Your task to perform on an android device: Check the settings for the Google Maps app Image 0: 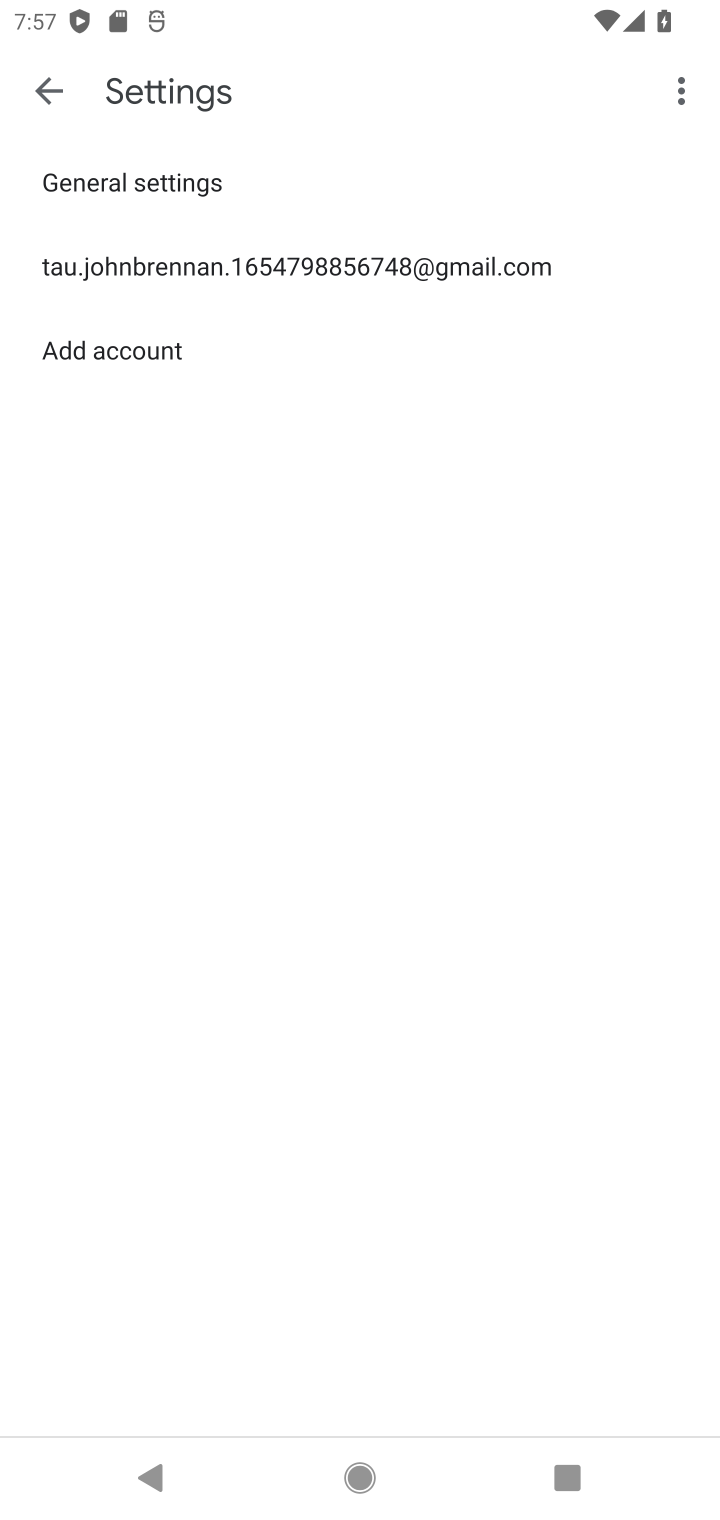
Step 0: press home button
Your task to perform on an android device: Check the settings for the Google Maps app Image 1: 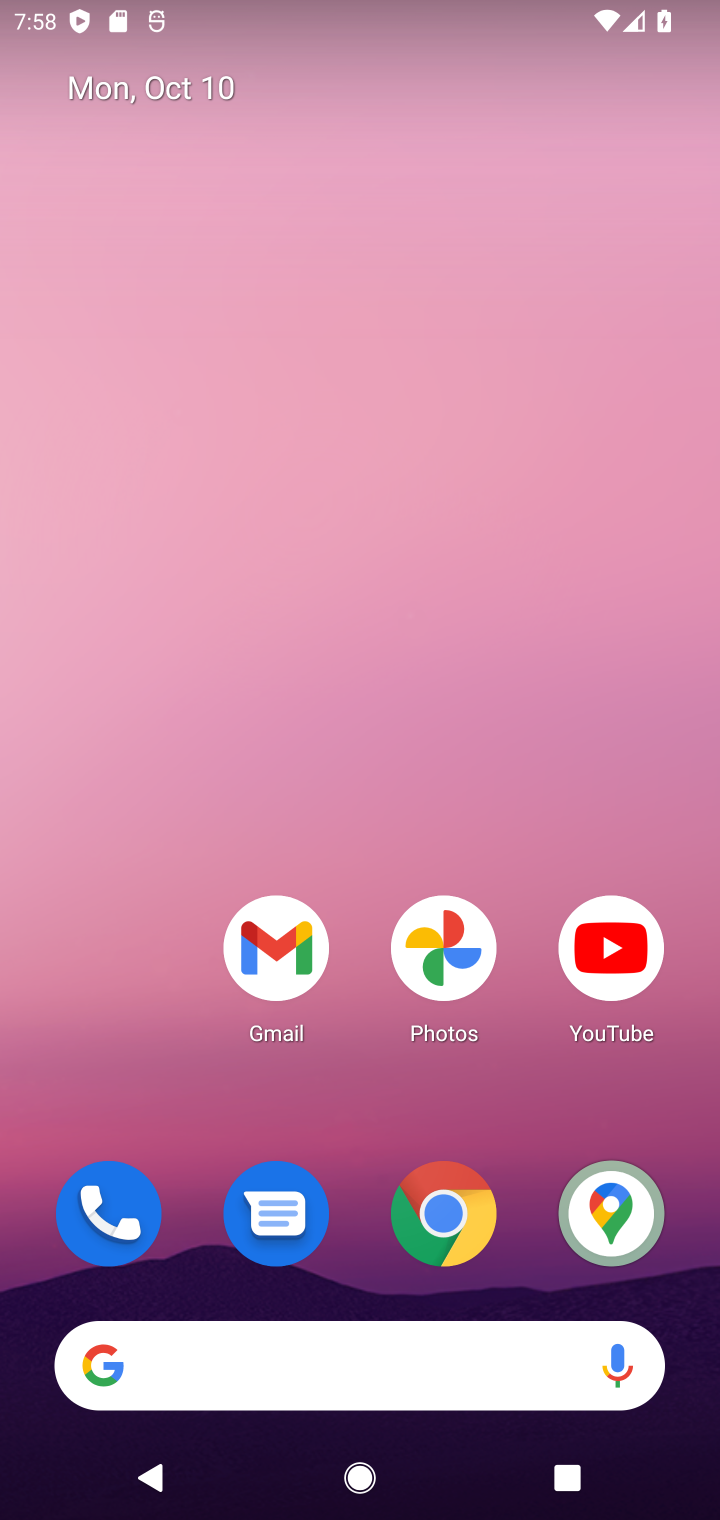
Step 1: click (605, 1219)
Your task to perform on an android device: Check the settings for the Google Maps app Image 2: 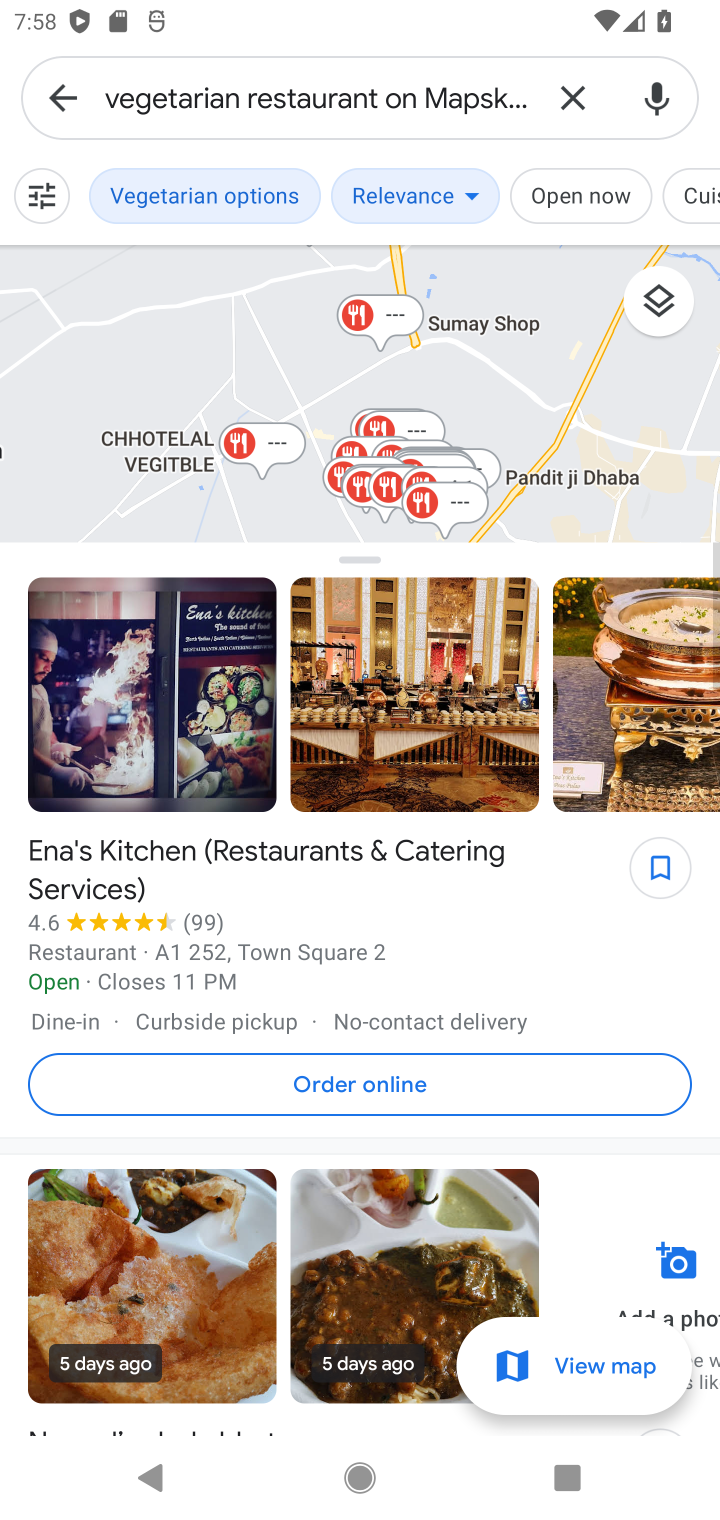
Step 2: click (66, 88)
Your task to perform on an android device: Check the settings for the Google Maps app Image 3: 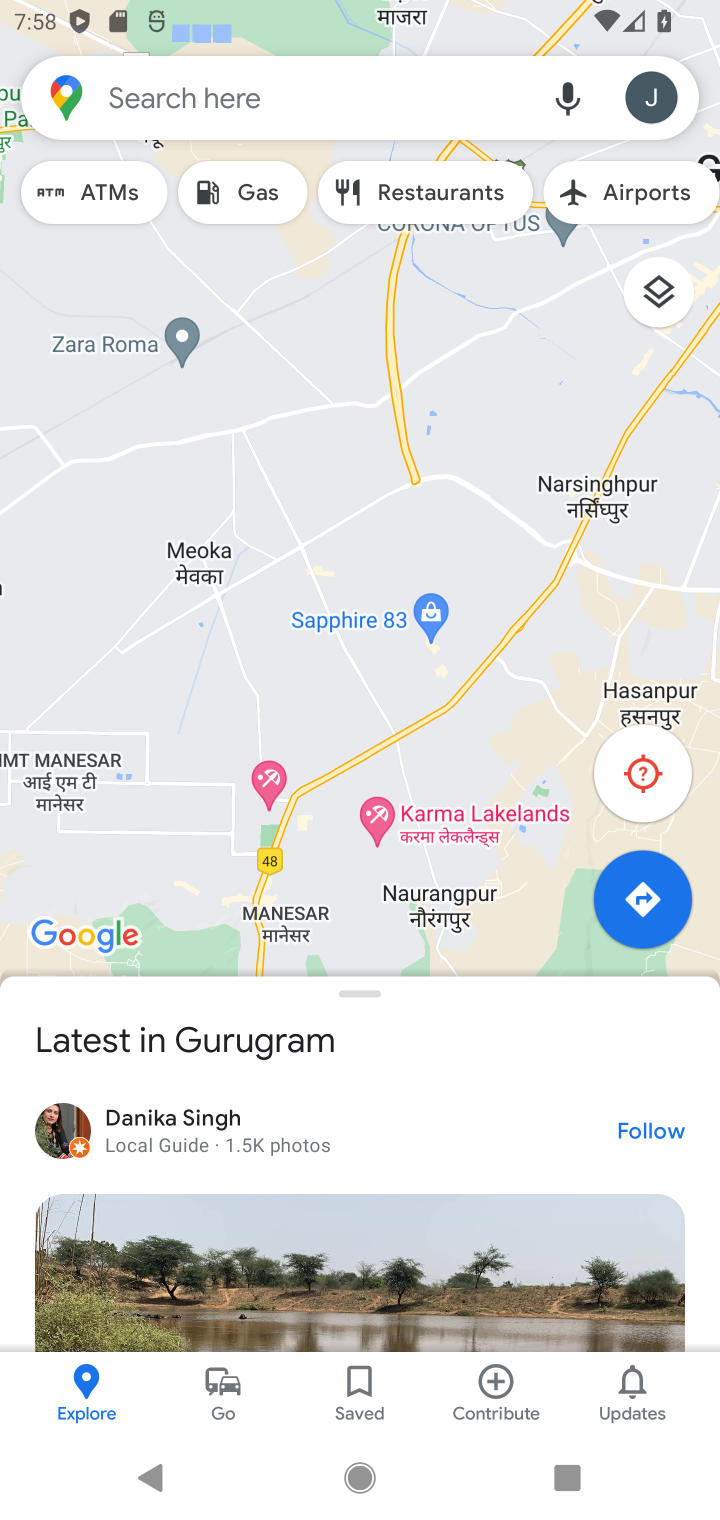
Step 3: click (648, 102)
Your task to perform on an android device: Check the settings for the Google Maps app Image 4: 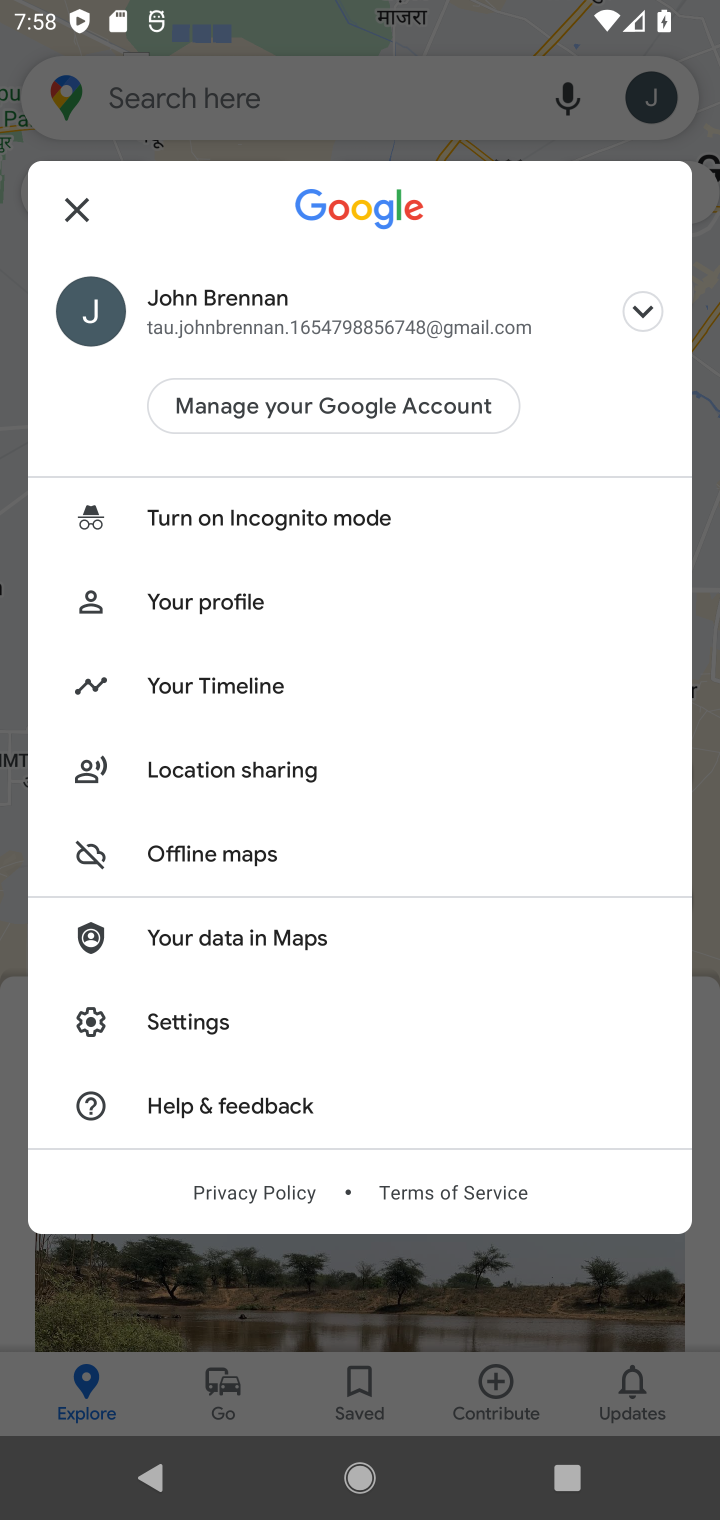
Step 4: click (191, 1009)
Your task to perform on an android device: Check the settings for the Google Maps app Image 5: 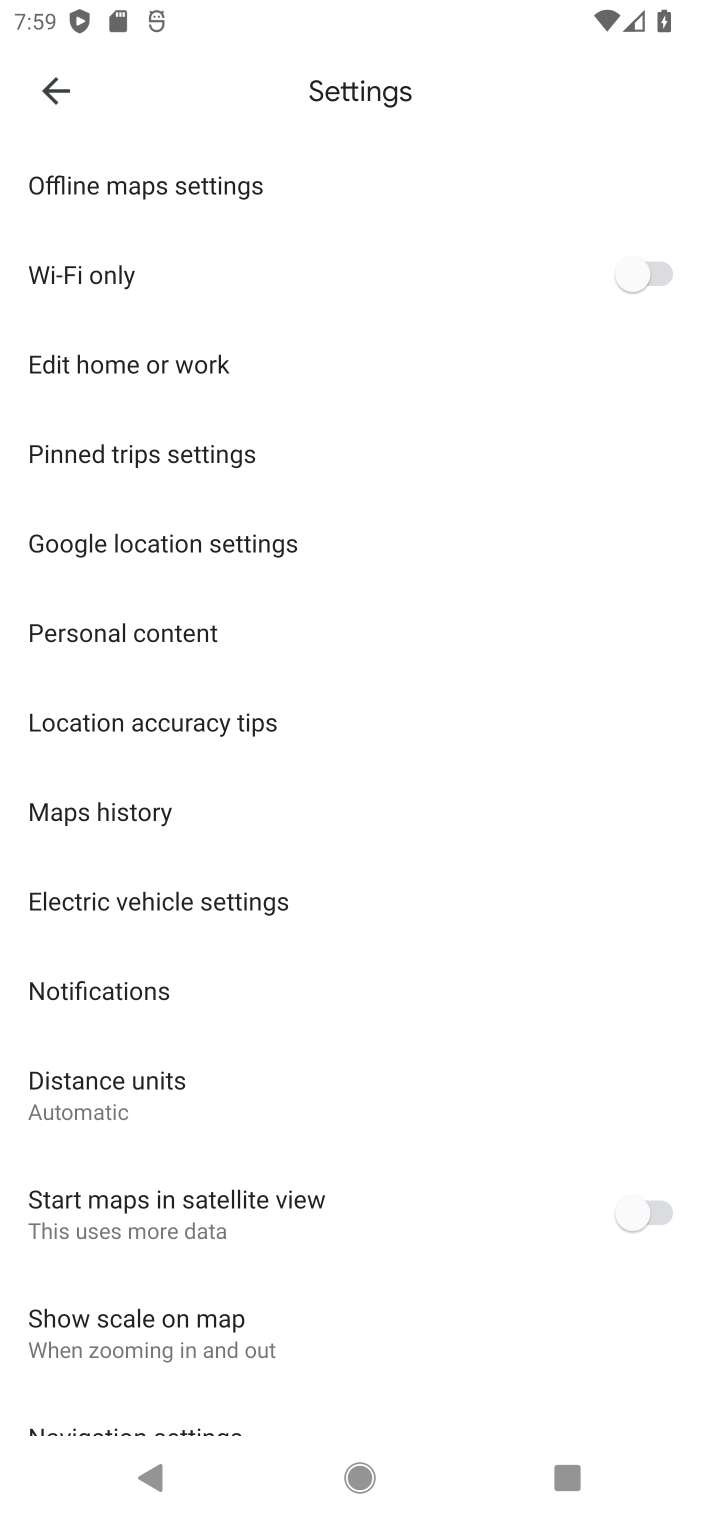
Step 5: task complete